Your task to perform on an android device: Is it going to rain tomorrow? Image 0: 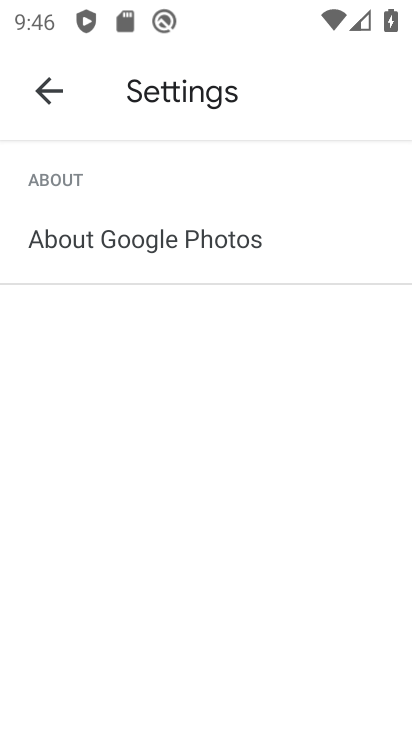
Step 0: click (272, 200)
Your task to perform on an android device: Is it going to rain tomorrow? Image 1: 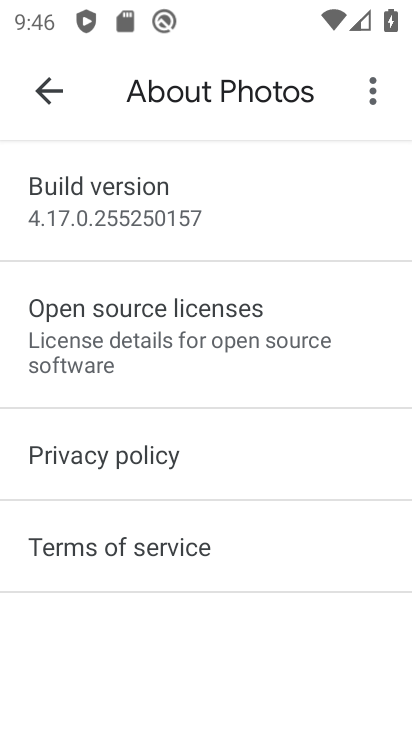
Step 1: press home button
Your task to perform on an android device: Is it going to rain tomorrow? Image 2: 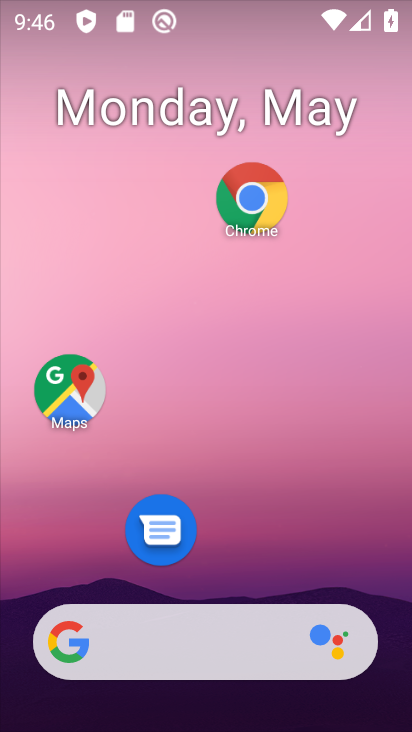
Step 2: click (245, 198)
Your task to perform on an android device: Is it going to rain tomorrow? Image 3: 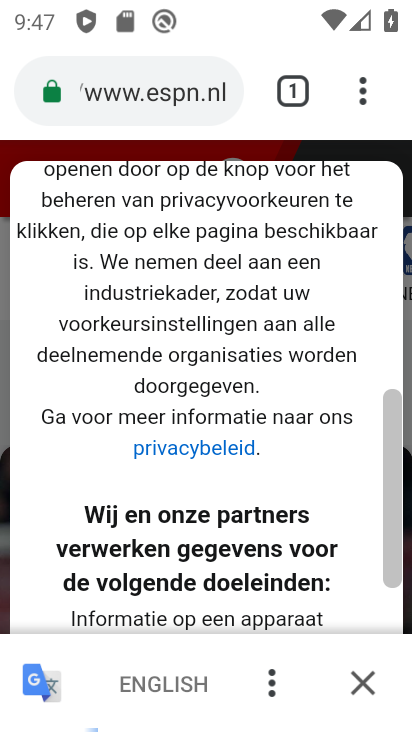
Step 3: press home button
Your task to perform on an android device: Is it going to rain tomorrow? Image 4: 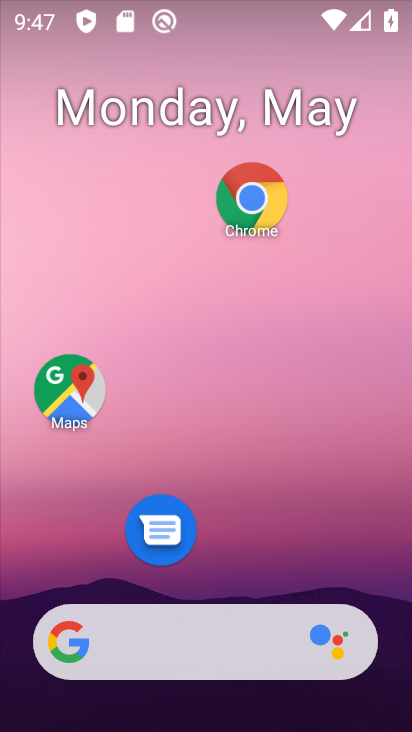
Step 4: drag from (257, 294) to (265, 184)
Your task to perform on an android device: Is it going to rain tomorrow? Image 5: 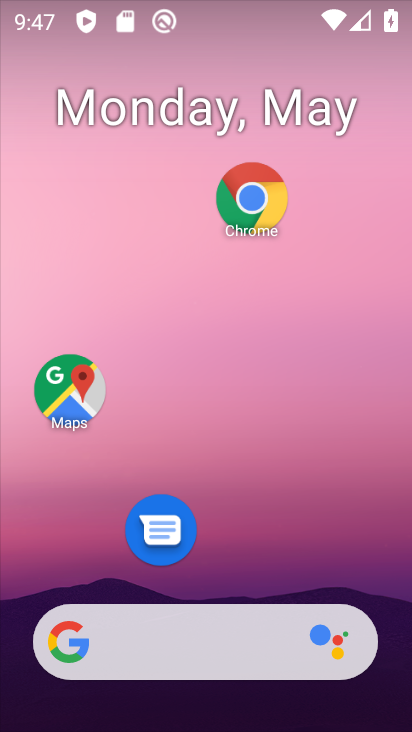
Step 5: drag from (207, 583) to (270, 11)
Your task to perform on an android device: Is it going to rain tomorrow? Image 6: 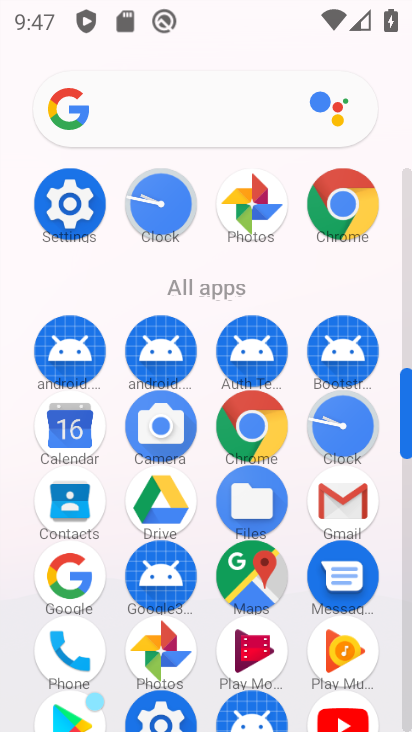
Step 6: click (70, 577)
Your task to perform on an android device: Is it going to rain tomorrow? Image 7: 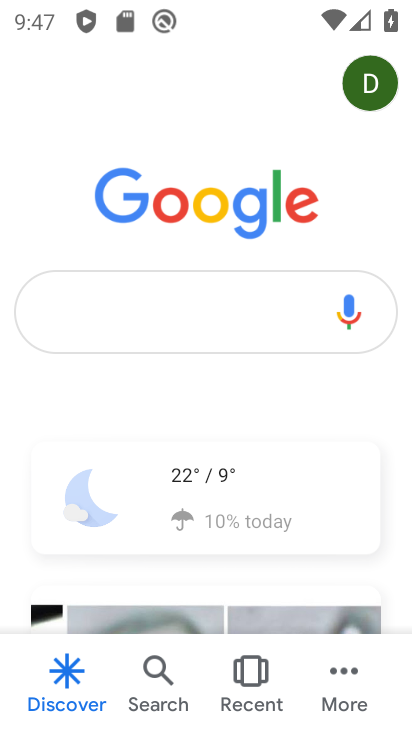
Step 7: click (188, 316)
Your task to perform on an android device: Is it going to rain tomorrow? Image 8: 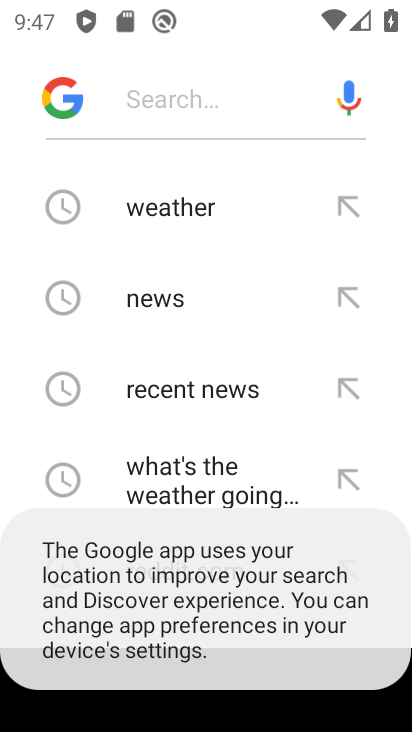
Step 8: click (197, 204)
Your task to perform on an android device: Is it going to rain tomorrow? Image 9: 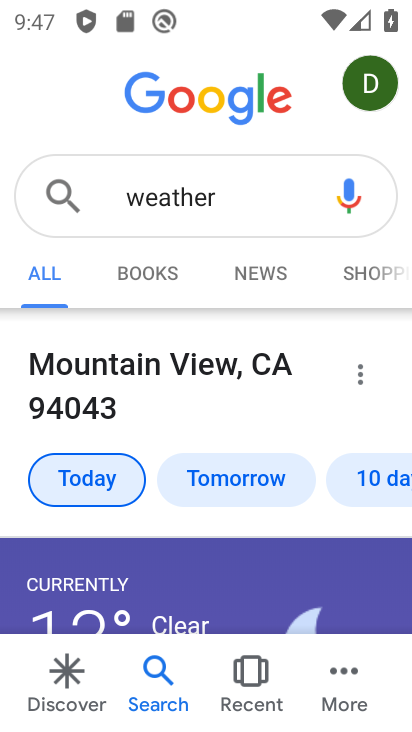
Step 9: click (223, 479)
Your task to perform on an android device: Is it going to rain tomorrow? Image 10: 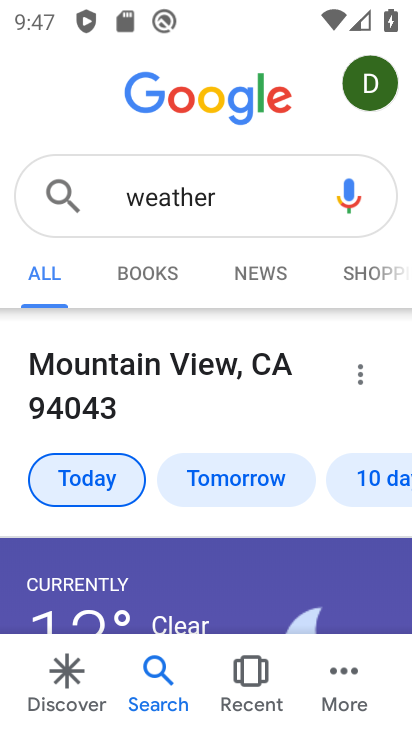
Step 10: click (241, 485)
Your task to perform on an android device: Is it going to rain tomorrow? Image 11: 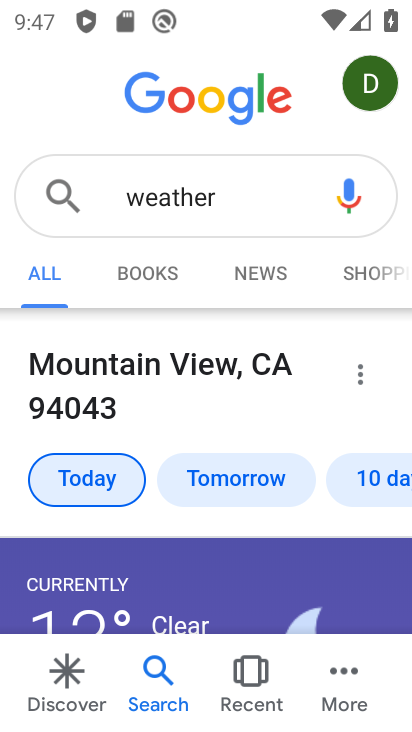
Step 11: click (220, 477)
Your task to perform on an android device: Is it going to rain tomorrow? Image 12: 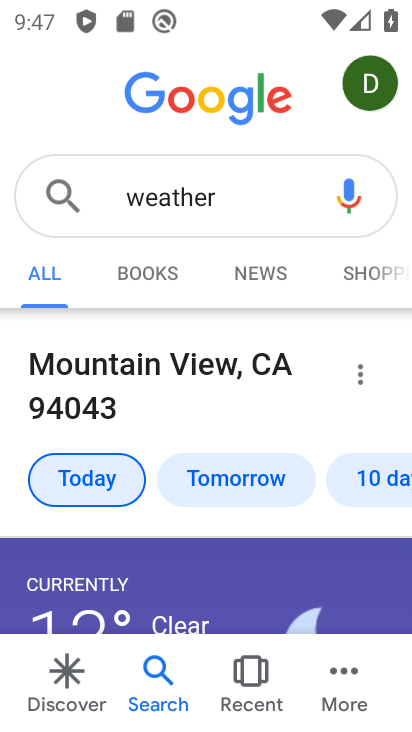
Step 12: click (220, 477)
Your task to perform on an android device: Is it going to rain tomorrow? Image 13: 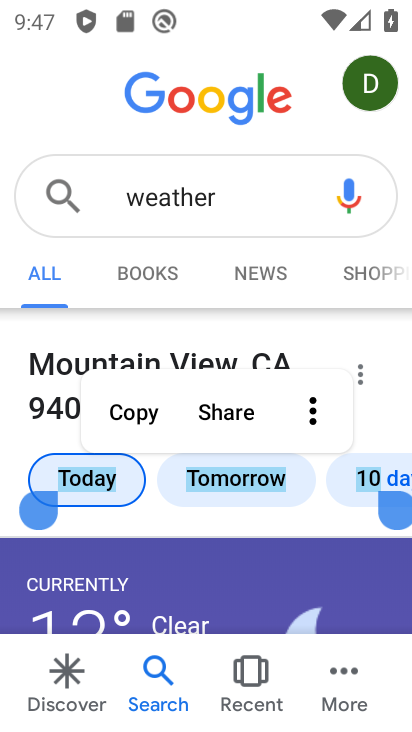
Step 13: click (241, 492)
Your task to perform on an android device: Is it going to rain tomorrow? Image 14: 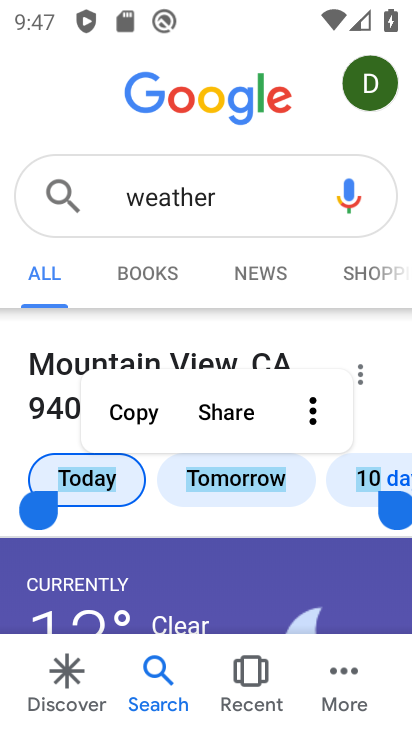
Step 14: click (242, 492)
Your task to perform on an android device: Is it going to rain tomorrow? Image 15: 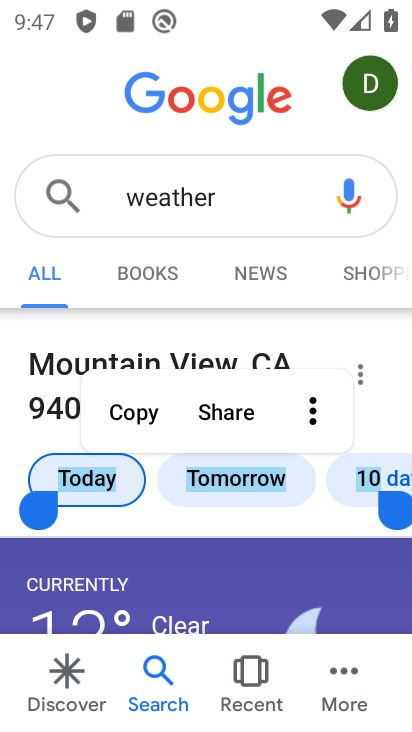
Step 15: task complete